Your task to perform on an android device: check google app version Image 0: 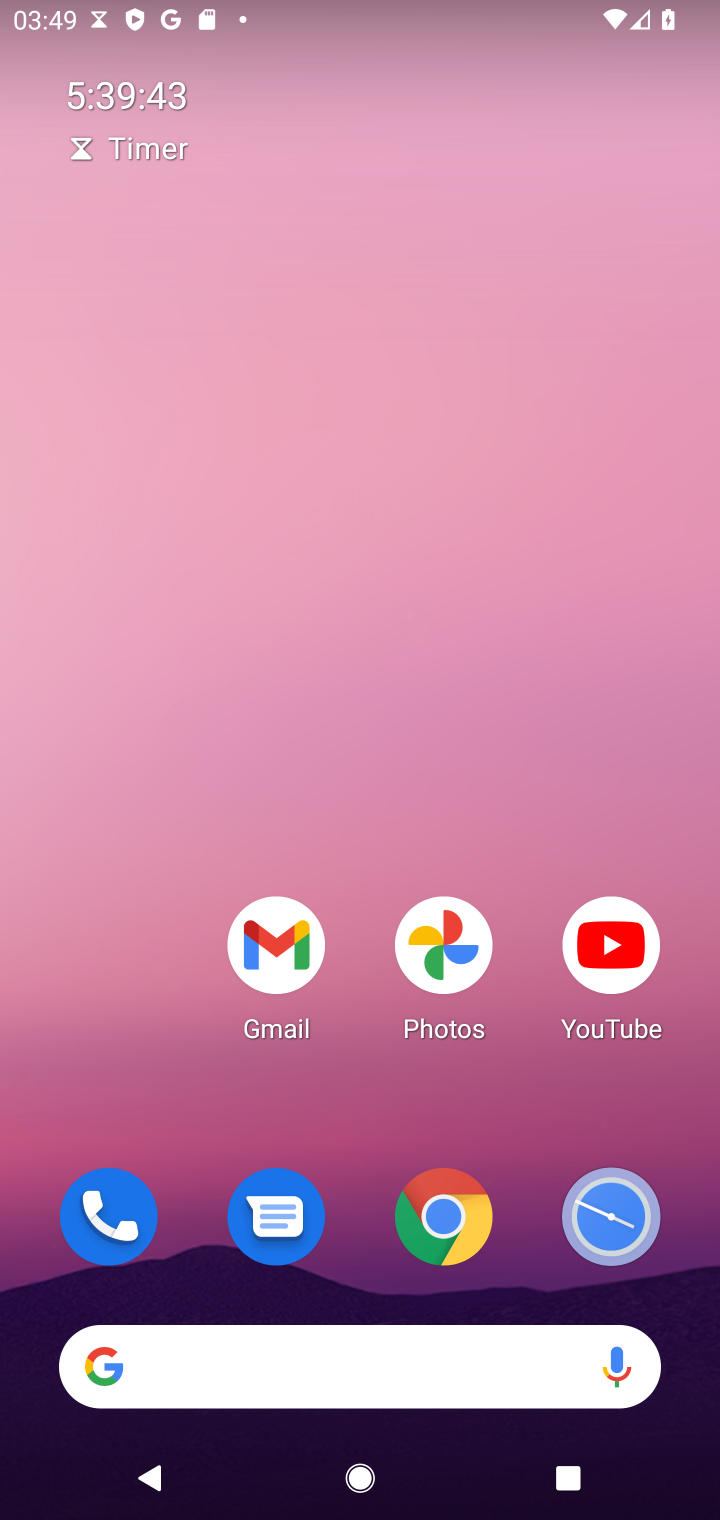
Step 0: drag from (373, 736) to (399, 127)
Your task to perform on an android device: check google app version Image 1: 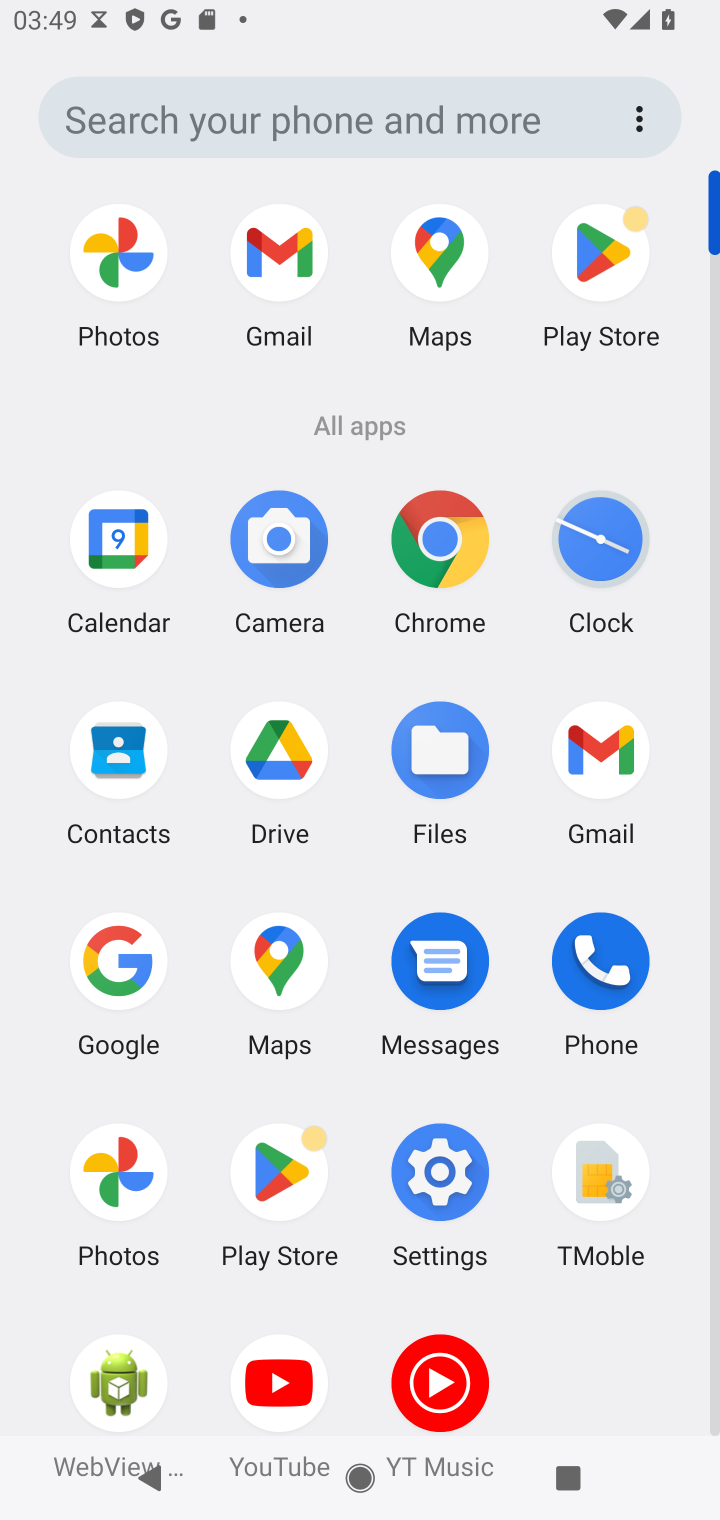
Step 1: click (116, 955)
Your task to perform on an android device: check google app version Image 2: 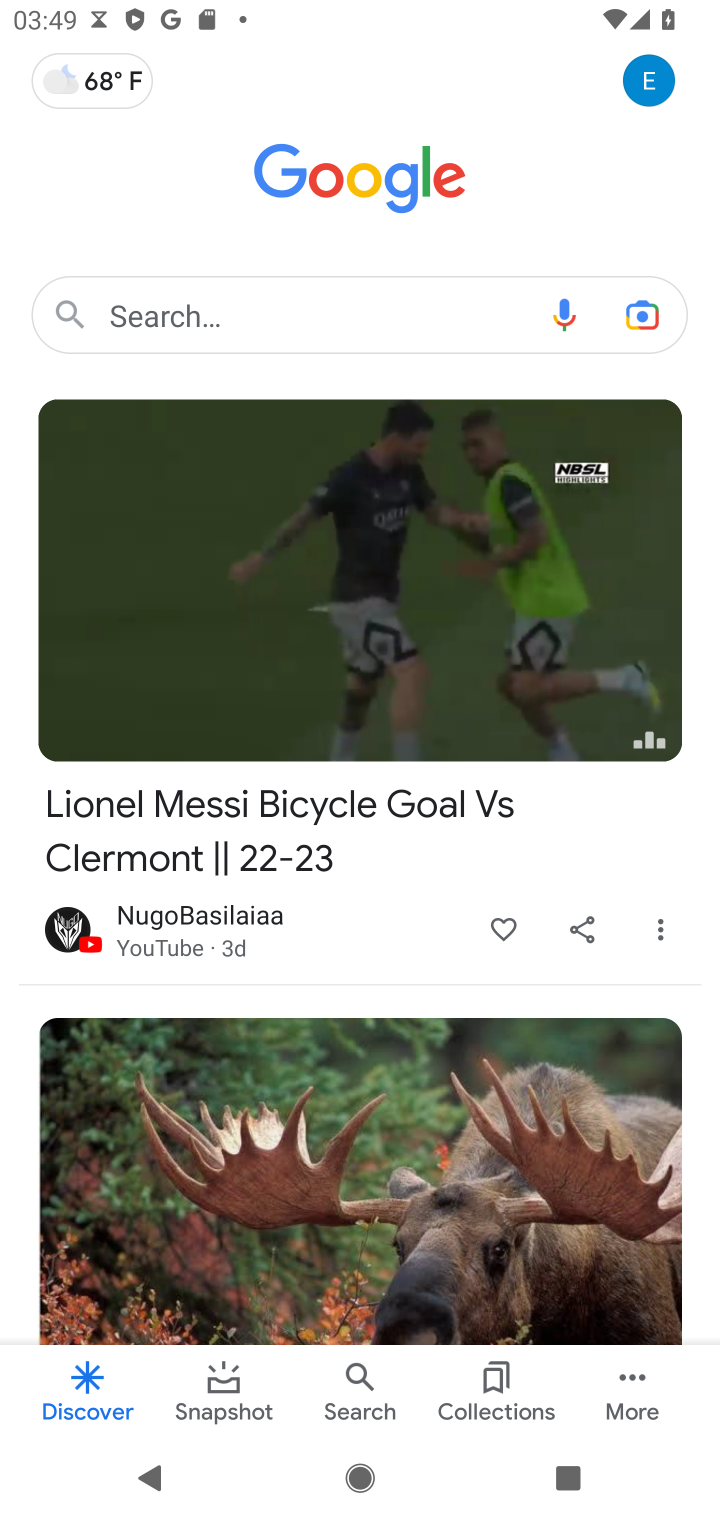
Step 2: click (659, 1397)
Your task to perform on an android device: check google app version Image 3: 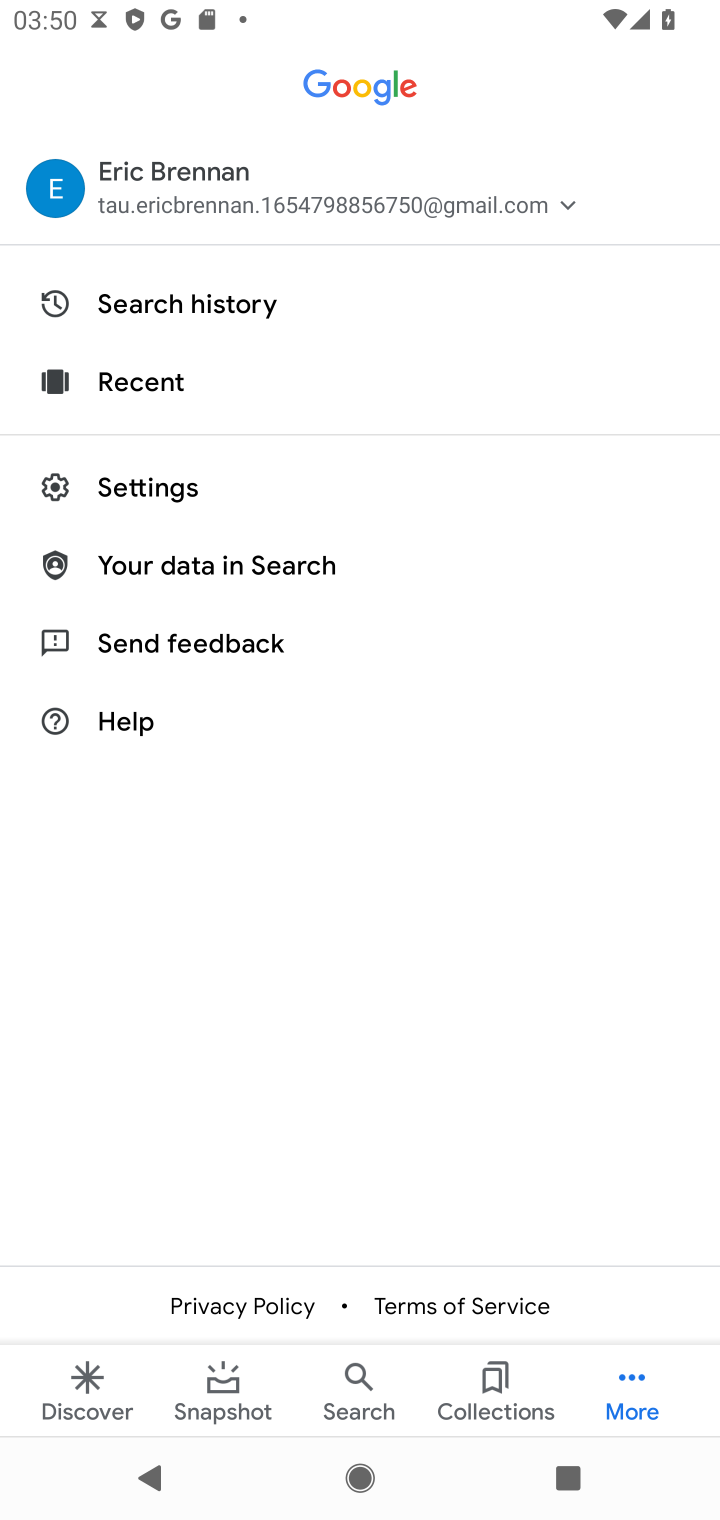
Step 3: click (298, 492)
Your task to perform on an android device: check google app version Image 4: 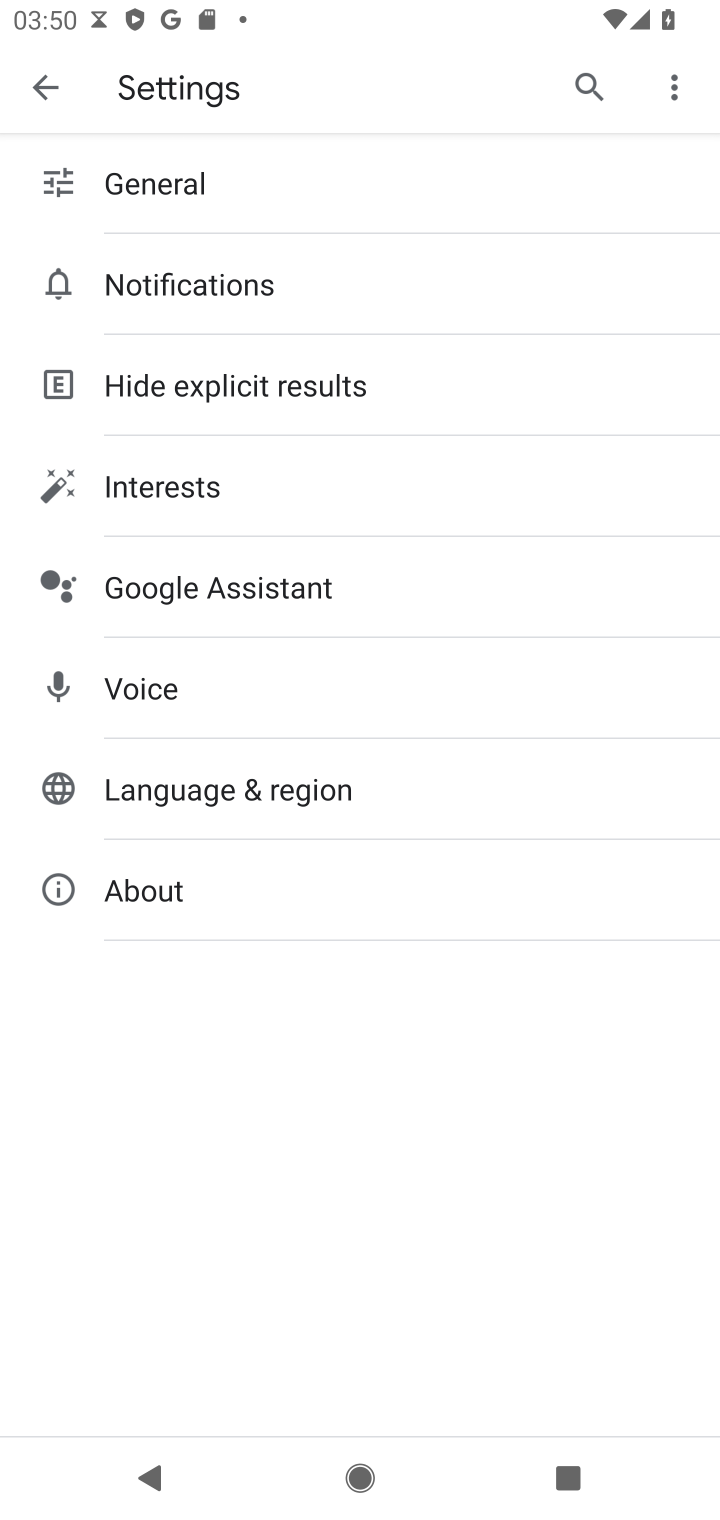
Step 4: click (301, 873)
Your task to perform on an android device: check google app version Image 5: 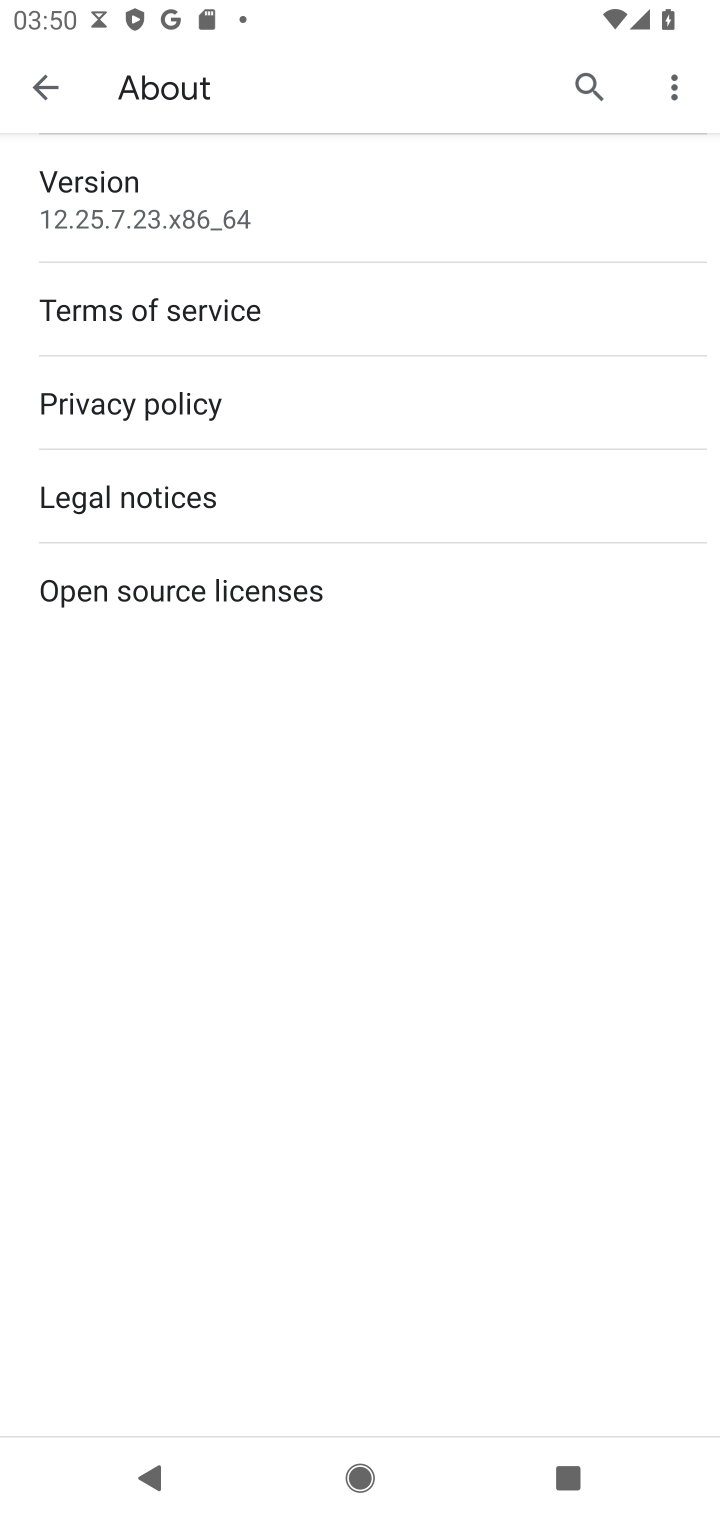
Step 5: click (283, 159)
Your task to perform on an android device: check google app version Image 6: 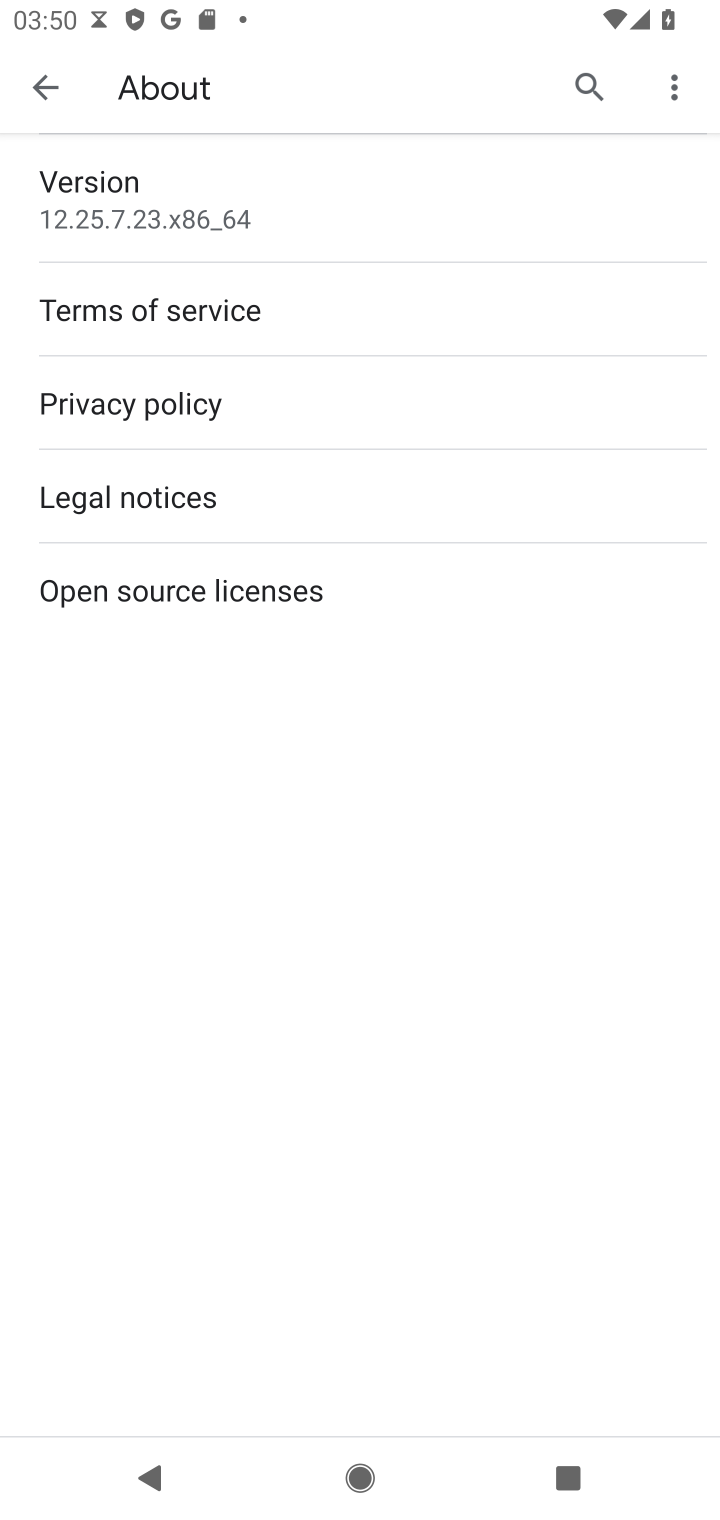
Step 6: click (206, 209)
Your task to perform on an android device: check google app version Image 7: 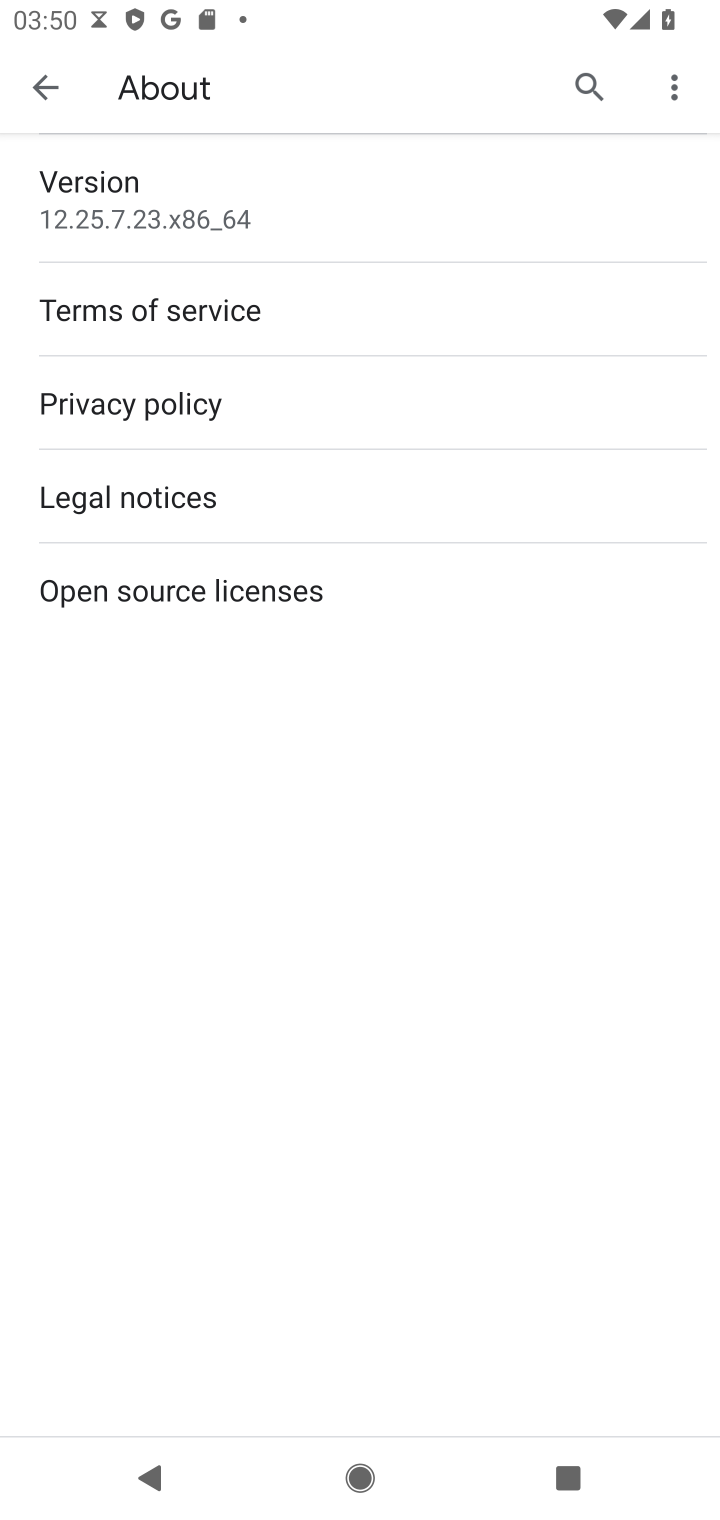
Step 7: task complete